Your task to perform on an android device: turn on improve location accuracy Image 0: 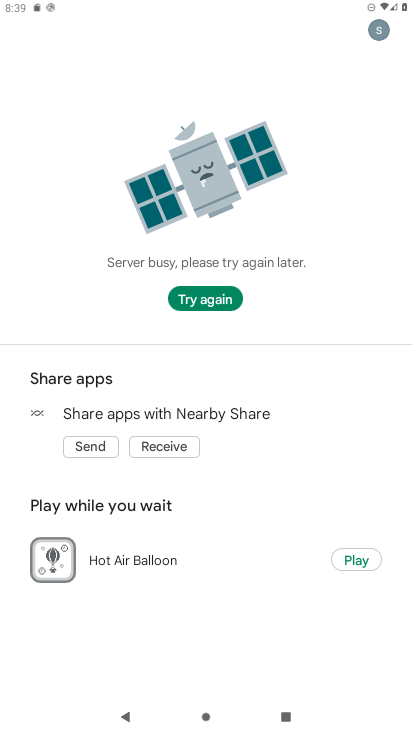
Step 0: press home button
Your task to perform on an android device: turn on improve location accuracy Image 1: 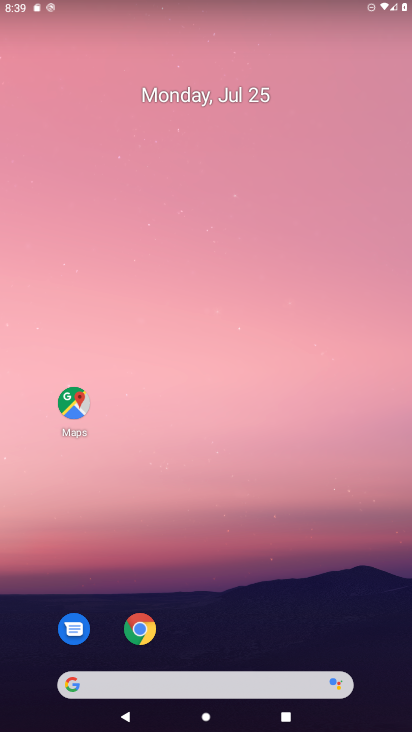
Step 1: drag from (254, 655) to (293, 43)
Your task to perform on an android device: turn on improve location accuracy Image 2: 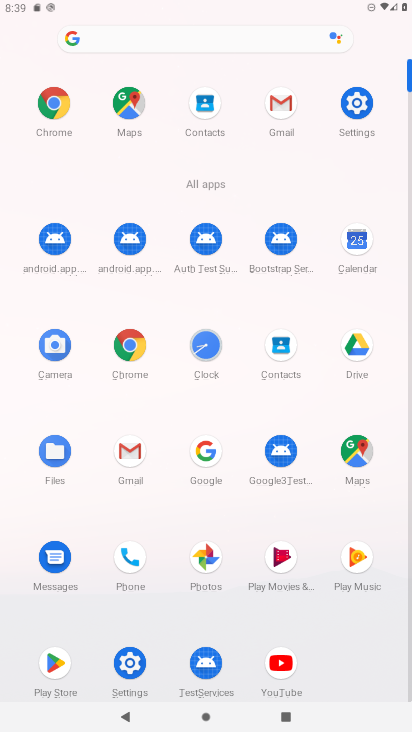
Step 2: click (357, 112)
Your task to perform on an android device: turn on improve location accuracy Image 3: 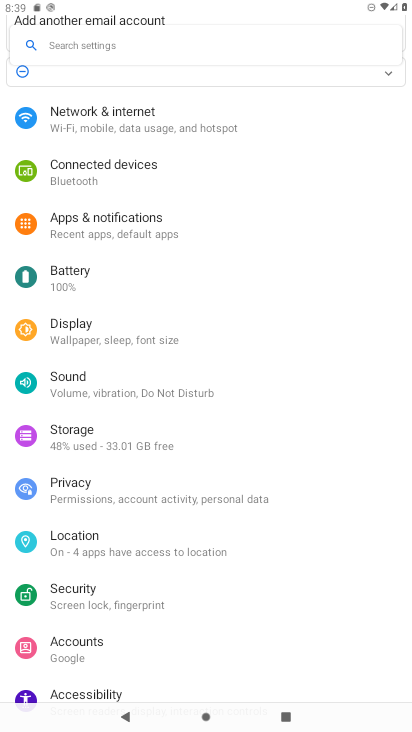
Step 3: click (71, 542)
Your task to perform on an android device: turn on improve location accuracy Image 4: 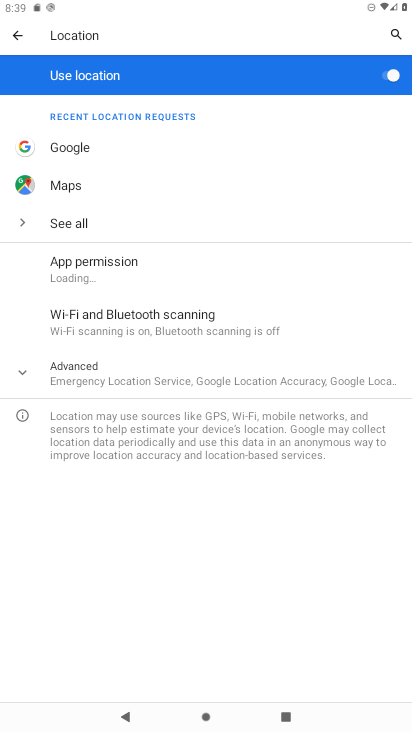
Step 4: click (17, 377)
Your task to perform on an android device: turn on improve location accuracy Image 5: 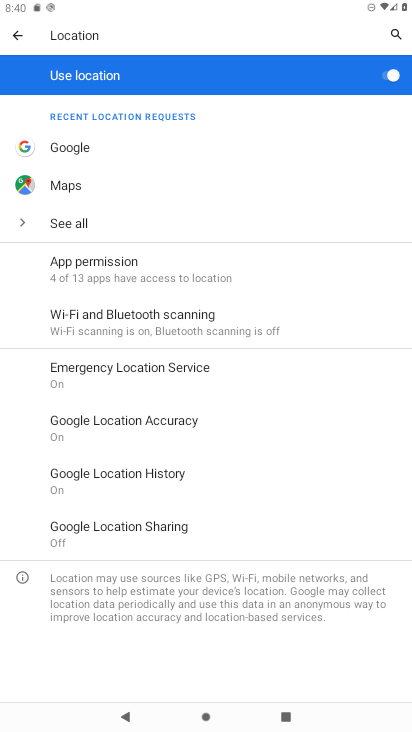
Step 5: click (123, 426)
Your task to perform on an android device: turn on improve location accuracy Image 6: 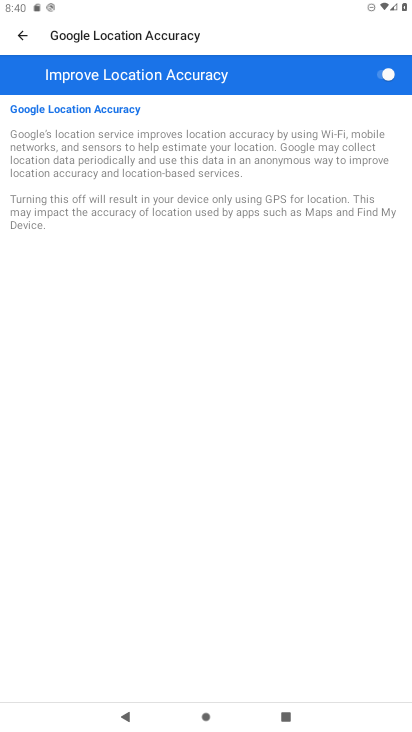
Step 6: task complete